Your task to perform on an android device: toggle priority inbox in the gmail app Image 0: 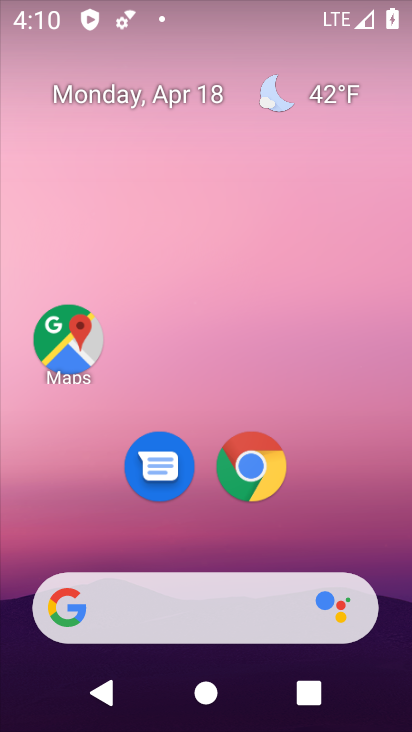
Step 0: drag from (392, 606) to (368, 191)
Your task to perform on an android device: toggle priority inbox in the gmail app Image 1: 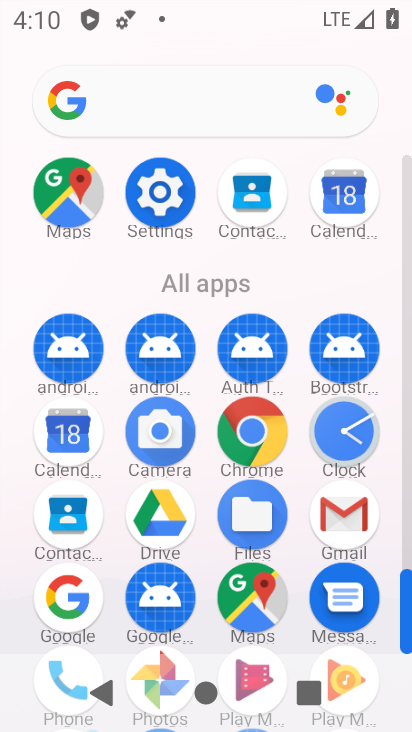
Step 1: click (407, 551)
Your task to perform on an android device: toggle priority inbox in the gmail app Image 2: 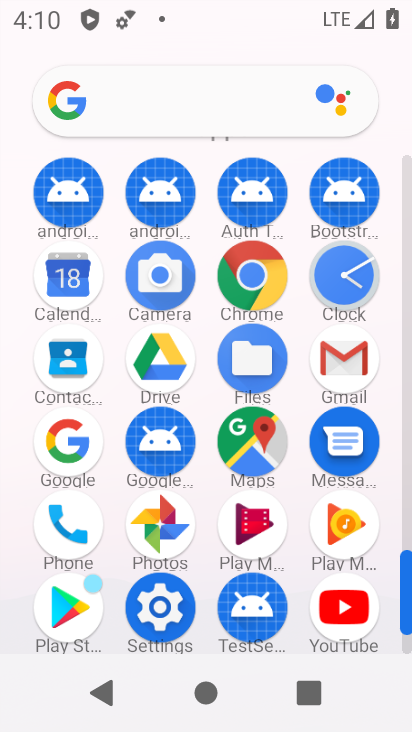
Step 2: click (337, 352)
Your task to perform on an android device: toggle priority inbox in the gmail app Image 3: 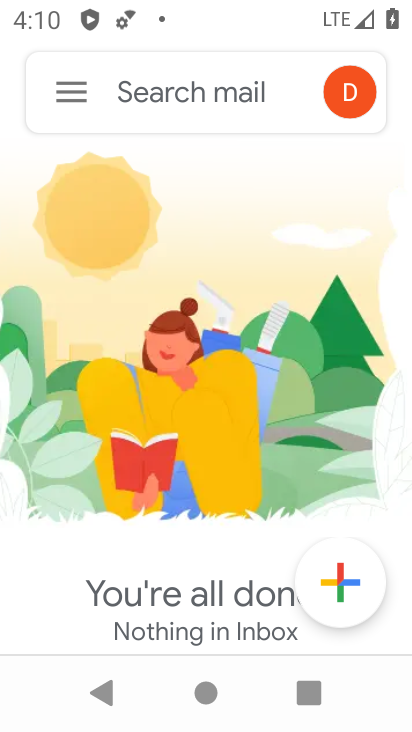
Step 3: click (65, 92)
Your task to perform on an android device: toggle priority inbox in the gmail app Image 4: 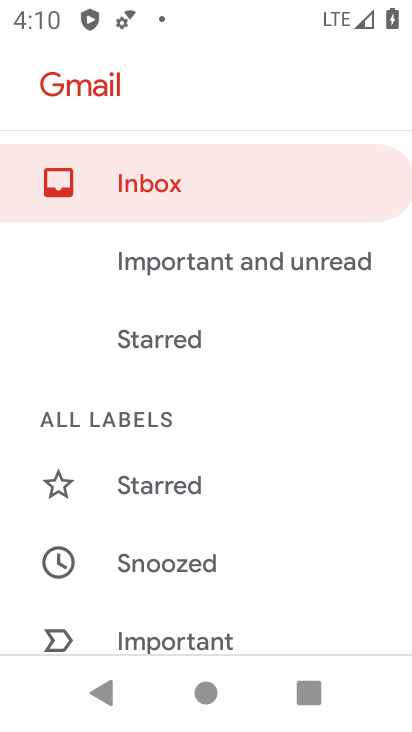
Step 4: drag from (258, 603) to (295, 270)
Your task to perform on an android device: toggle priority inbox in the gmail app Image 5: 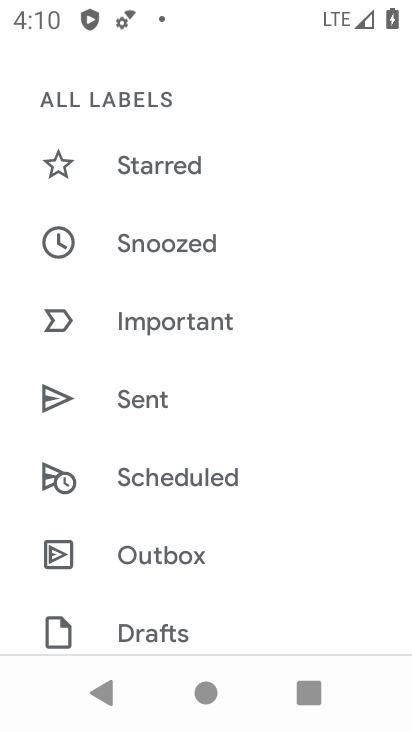
Step 5: drag from (271, 565) to (314, 338)
Your task to perform on an android device: toggle priority inbox in the gmail app Image 6: 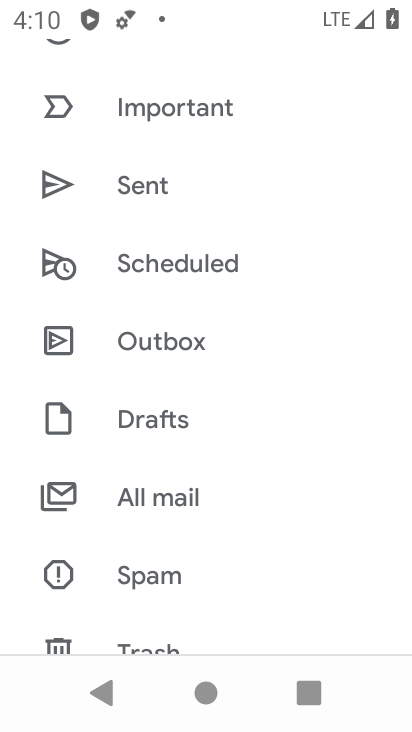
Step 6: drag from (269, 596) to (317, 260)
Your task to perform on an android device: toggle priority inbox in the gmail app Image 7: 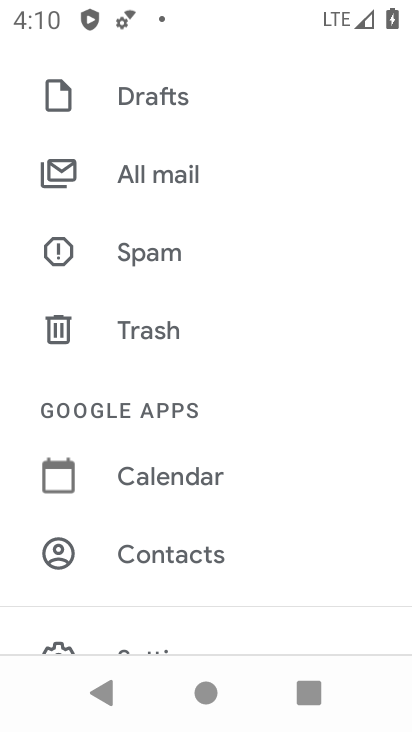
Step 7: drag from (256, 582) to (258, 163)
Your task to perform on an android device: toggle priority inbox in the gmail app Image 8: 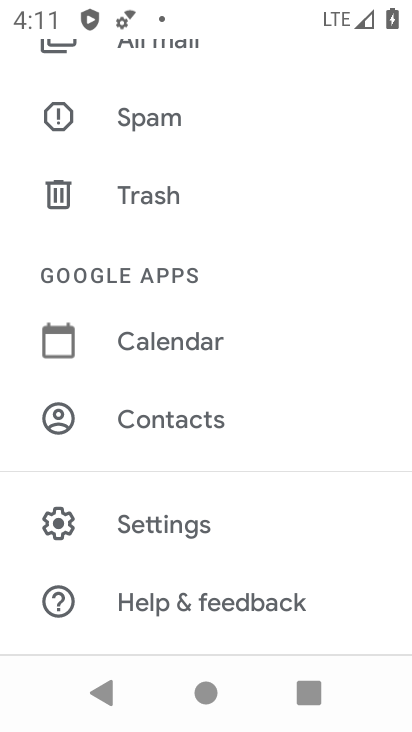
Step 8: click (163, 522)
Your task to perform on an android device: toggle priority inbox in the gmail app Image 9: 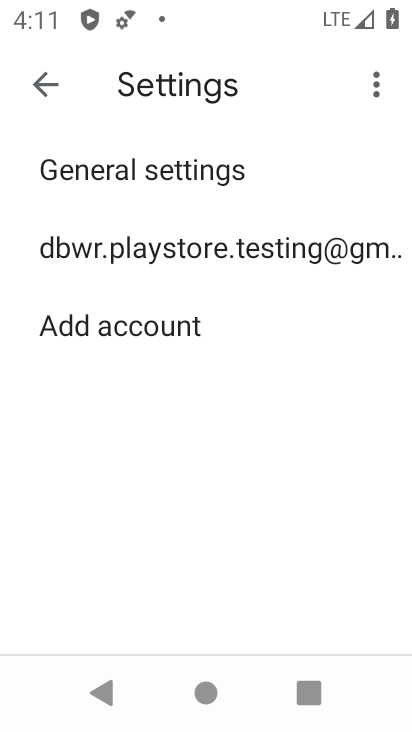
Step 9: click (162, 256)
Your task to perform on an android device: toggle priority inbox in the gmail app Image 10: 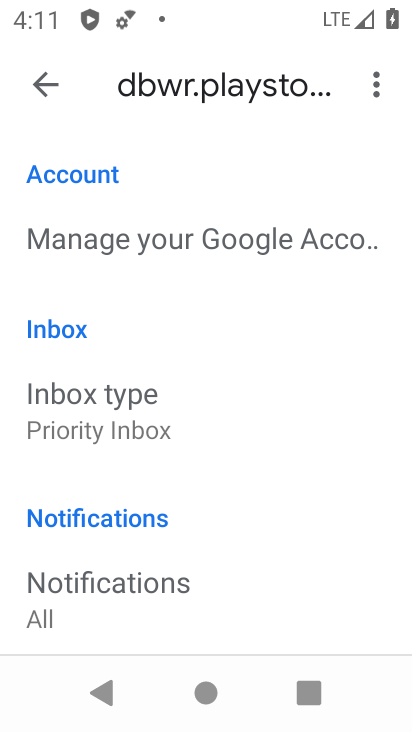
Step 10: click (98, 419)
Your task to perform on an android device: toggle priority inbox in the gmail app Image 11: 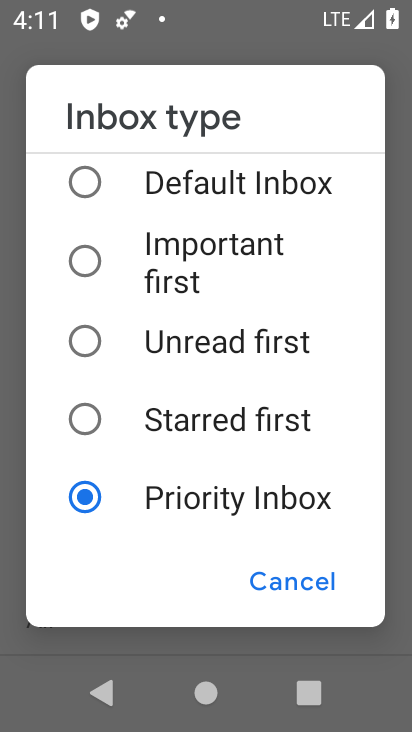
Step 11: click (87, 253)
Your task to perform on an android device: toggle priority inbox in the gmail app Image 12: 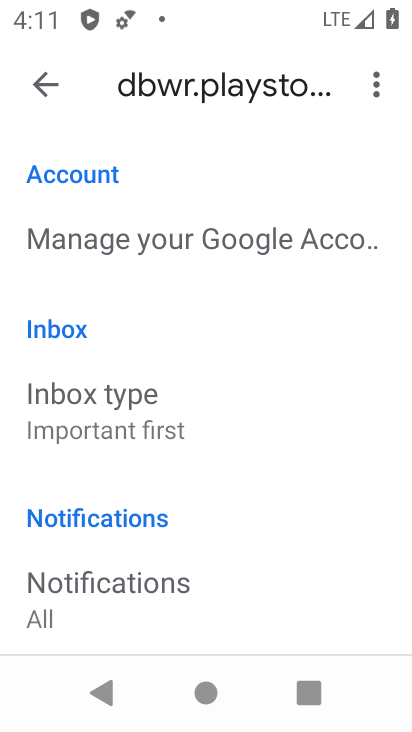
Step 12: task complete